Your task to perform on an android device: Go to notification settings Image 0: 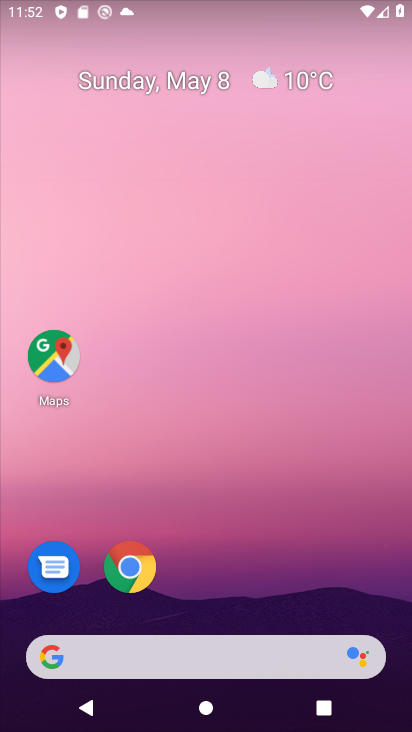
Step 0: drag from (188, 646) to (206, 252)
Your task to perform on an android device: Go to notification settings Image 1: 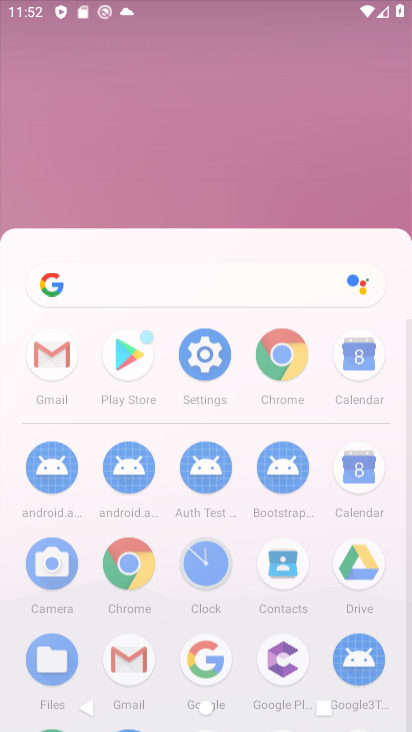
Step 1: click (221, 151)
Your task to perform on an android device: Go to notification settings Image 2: 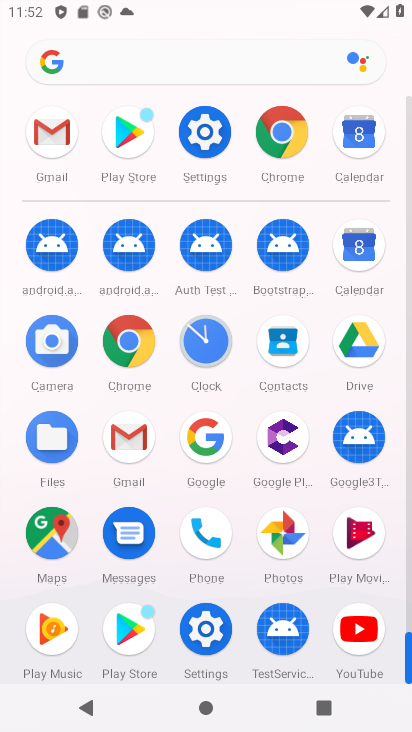
Step 2: click (217, 146)
Your task to perform on an android device: Go to notification settings Image 3: 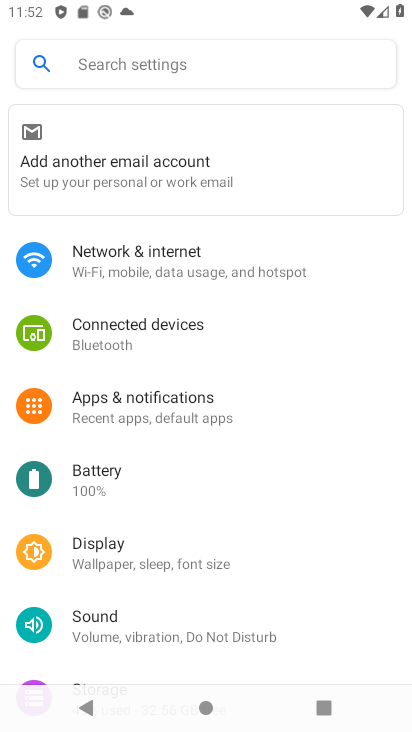
Step 3: click (196, 410)
Your task to perform on an android device: Go to notification settings Image 4: 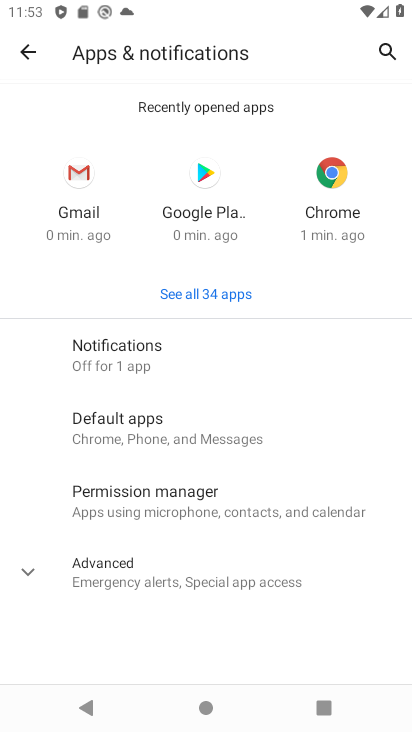
Step 4: click (139, 352)
Your task to perform on an android device: Go to notification settings Image 5: 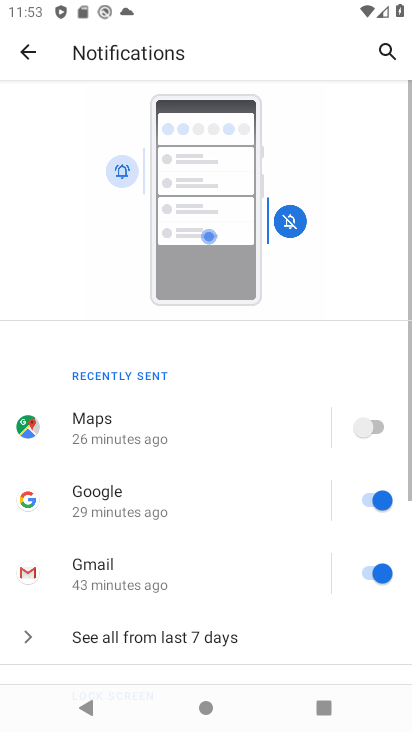
Step 5: task complete